Your task to perform on an android device: turn pop-ups off in chrome Image 0: 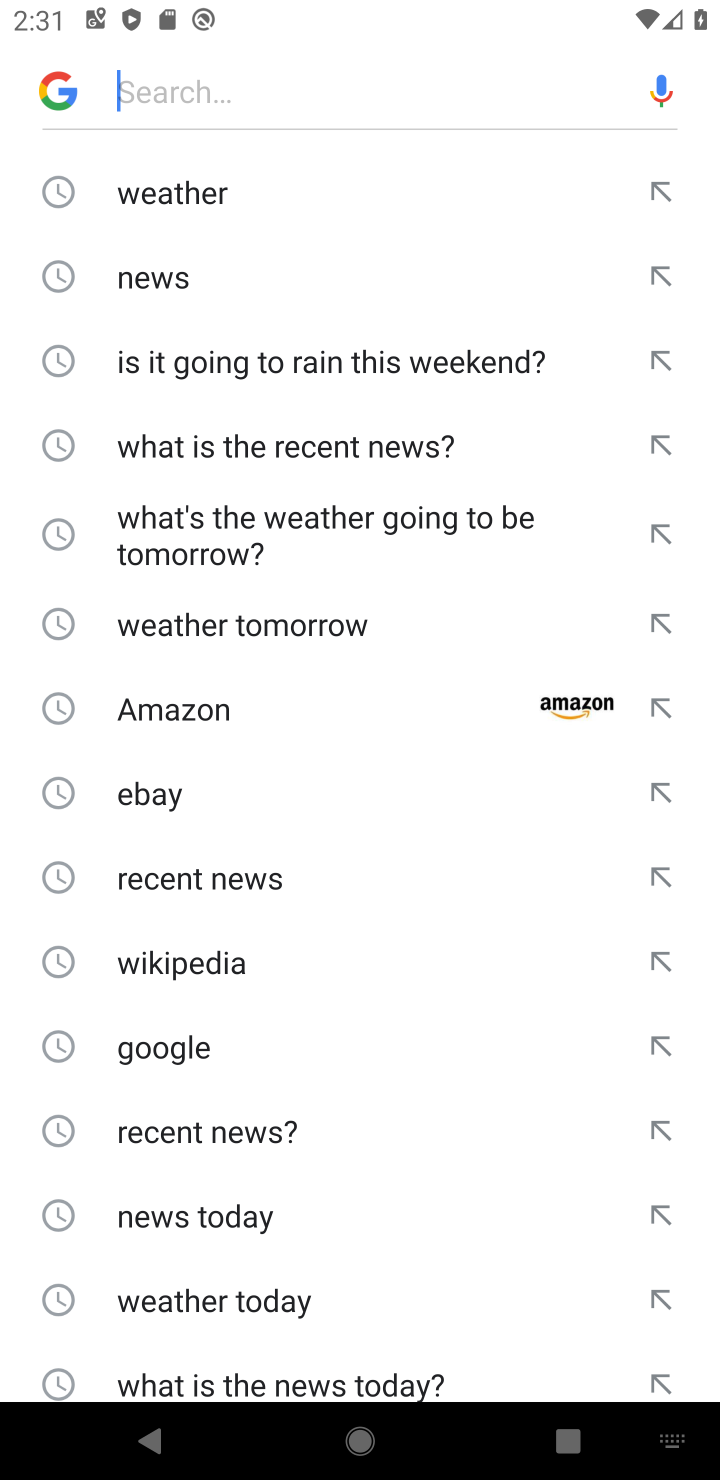
Step 0: press back button
Your task to perform on an android device: turn pop-ups off in chrome Image 1: 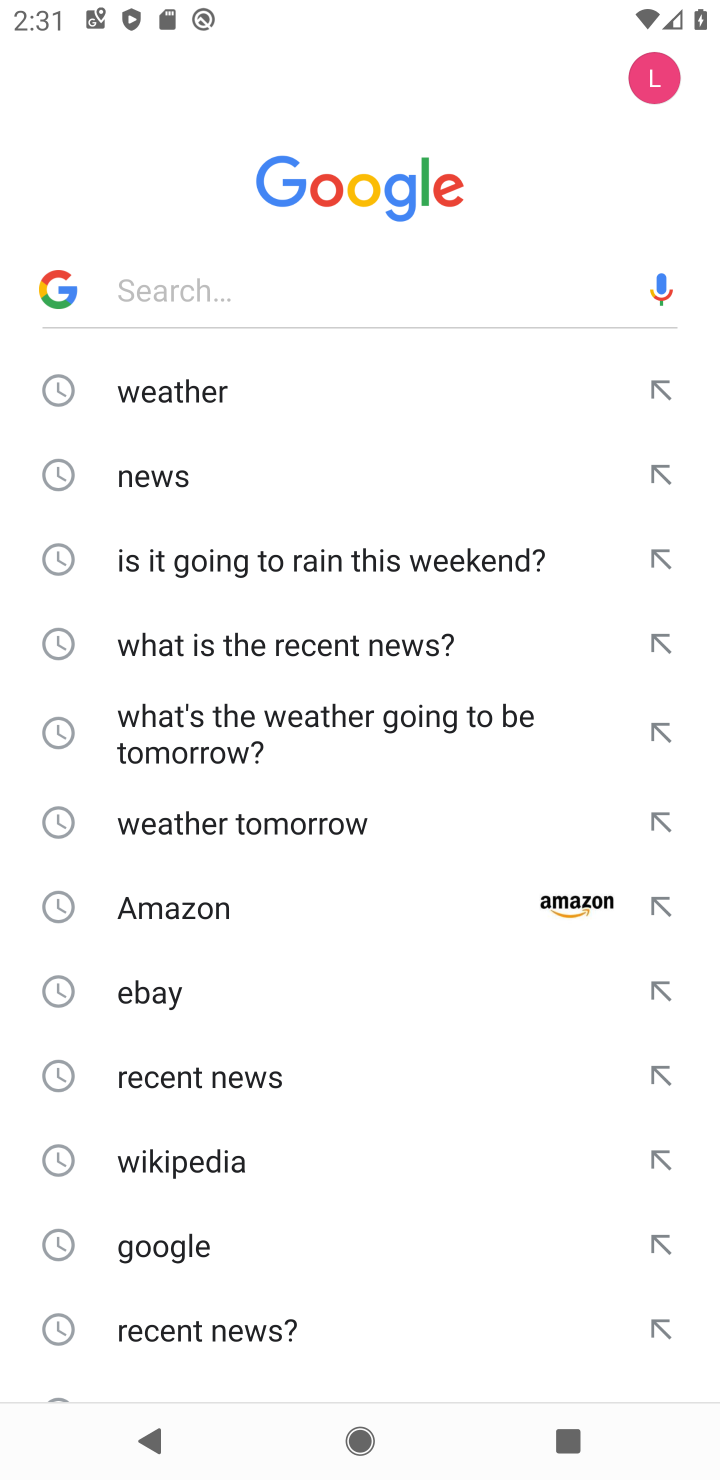
Step 1: press home button
Your task to perform on an android device: turn pop-ups off in chrome Image 2: 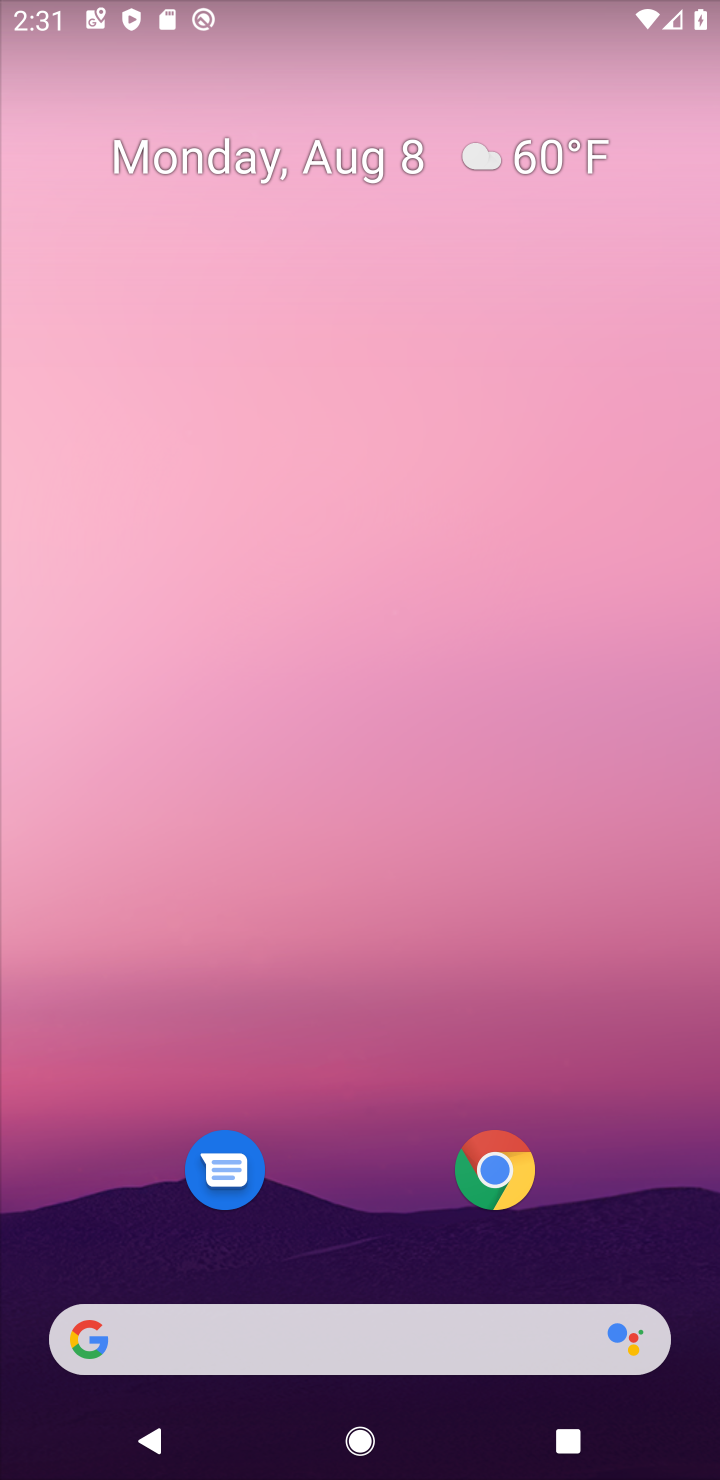
Step 2: click (480, 1186)
Your task to perform on an android device: turn pop-ups off in chrome Image 3: 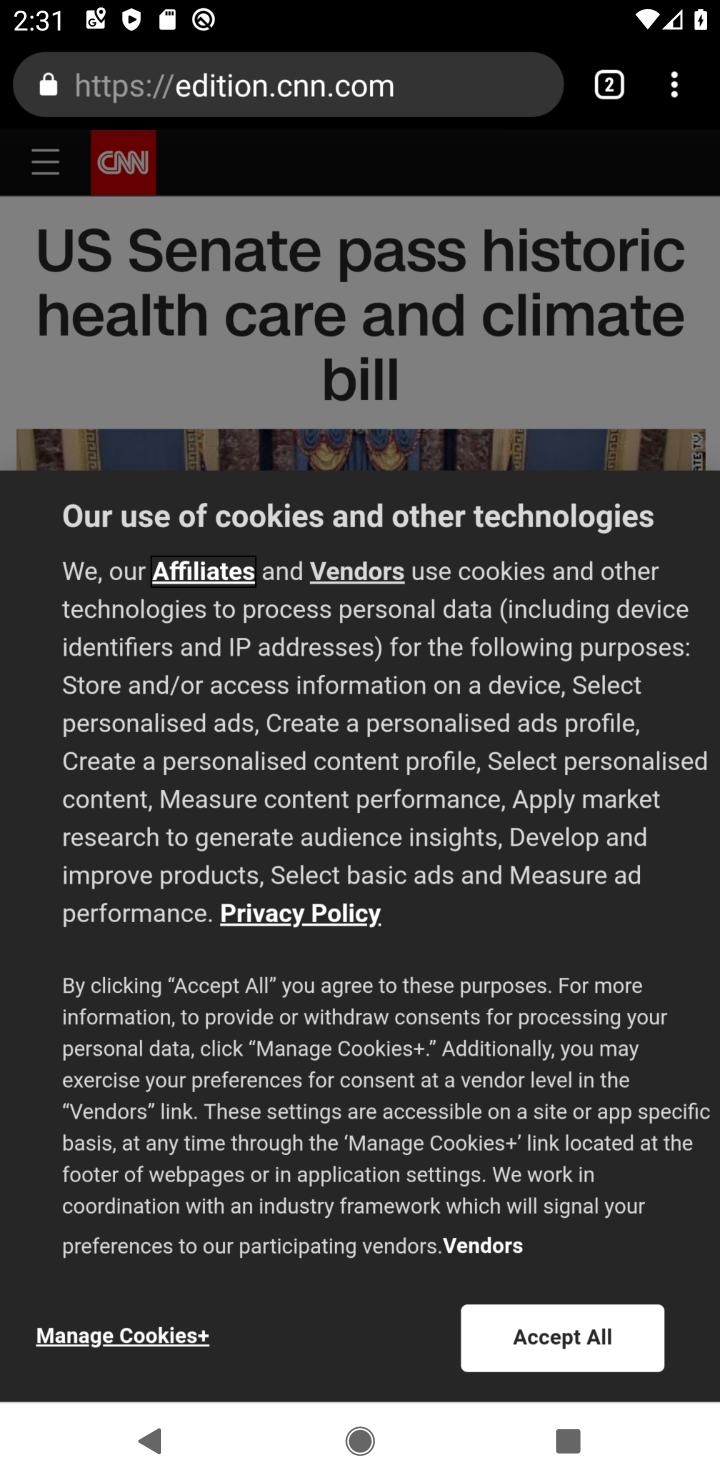
Step 3: click (673, 79)
Your task to perform on an android device: turn pop-ups off in chrome Image 4: 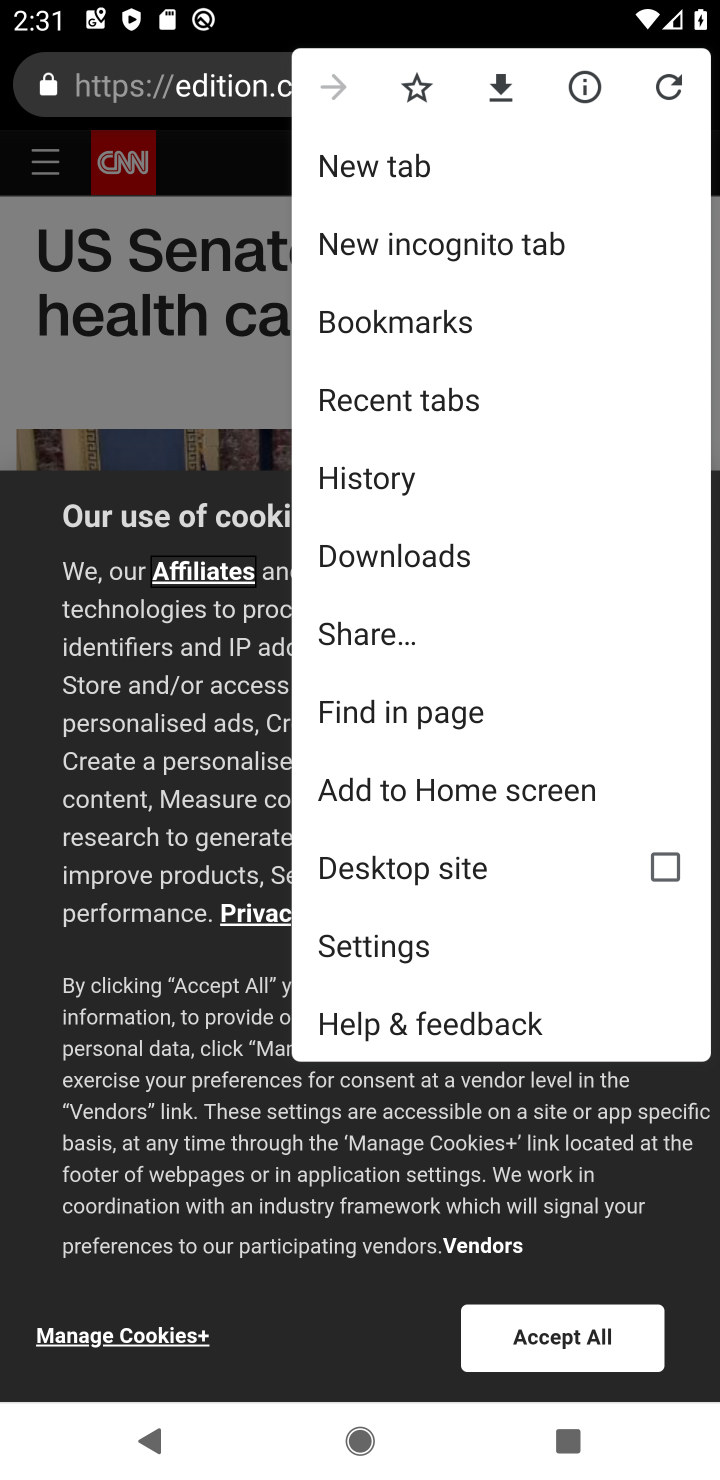
Step 4: click (389, 955)
Your task to perform on an android device: turn pop-ups off in chrome Image 5: 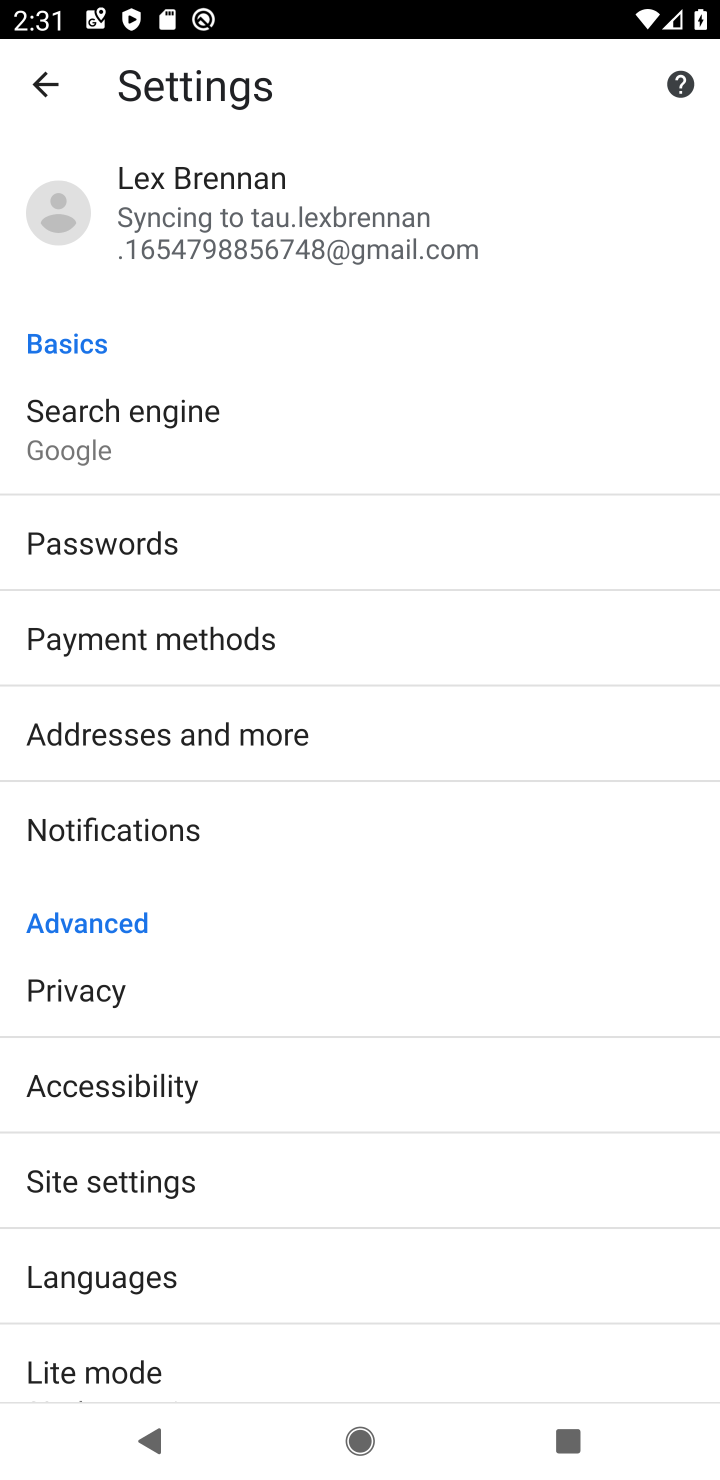
Step 5: click (232, 1182)
Your task to perform on an android device: turn pop-ups off in chrome Image 6: 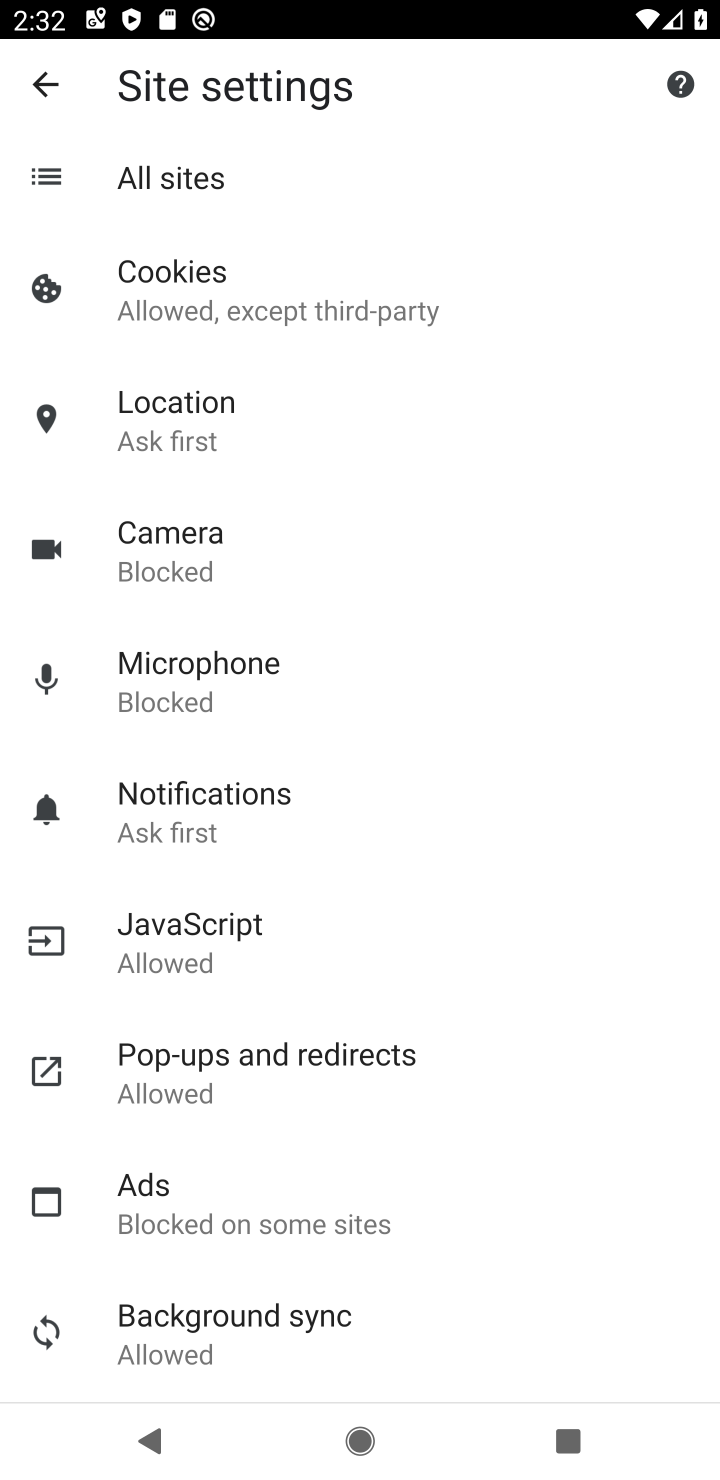
Step 6: click (251, 1091)
Your task to perform on an android device: turn pop-ups off in chrome Image 7: 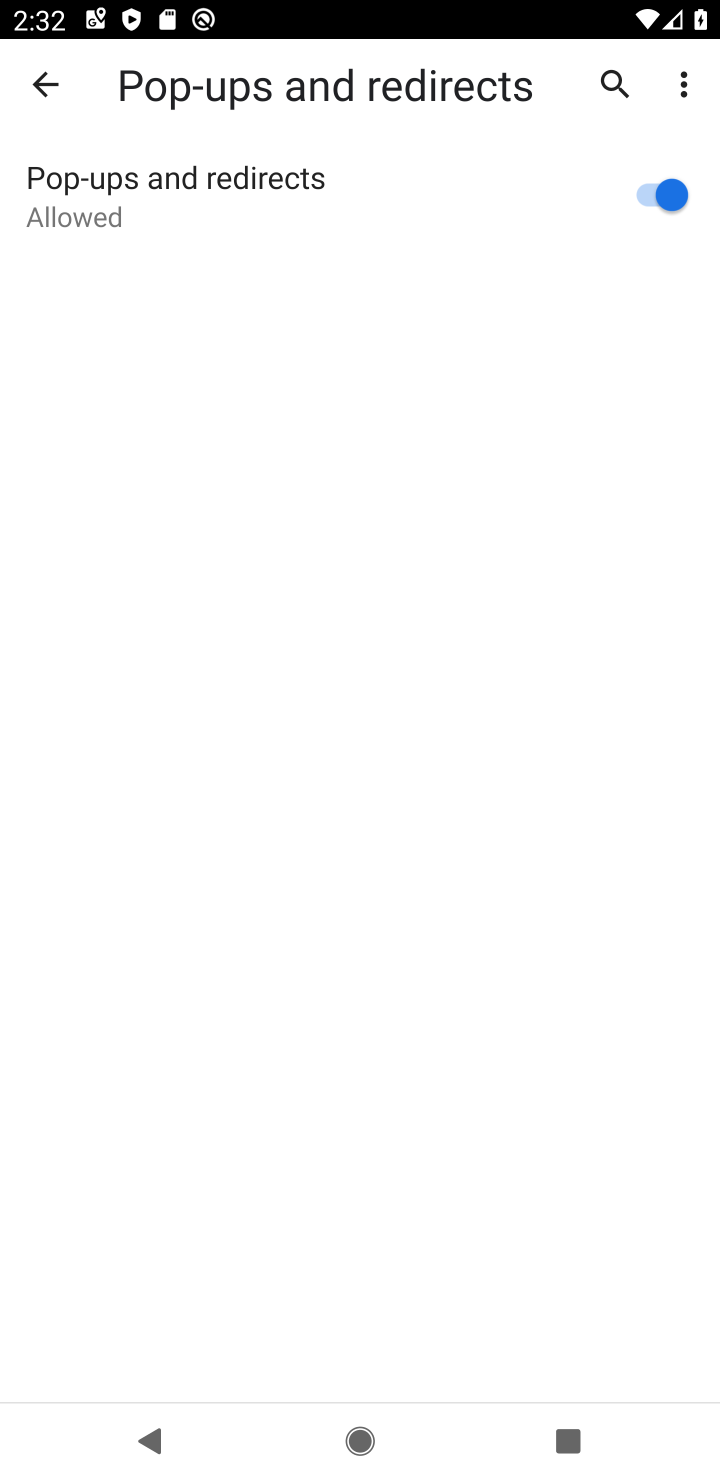
Step 7: click (638, 198)
Your task to perform on an android device: turn pop-ups off in chrome Image 8: 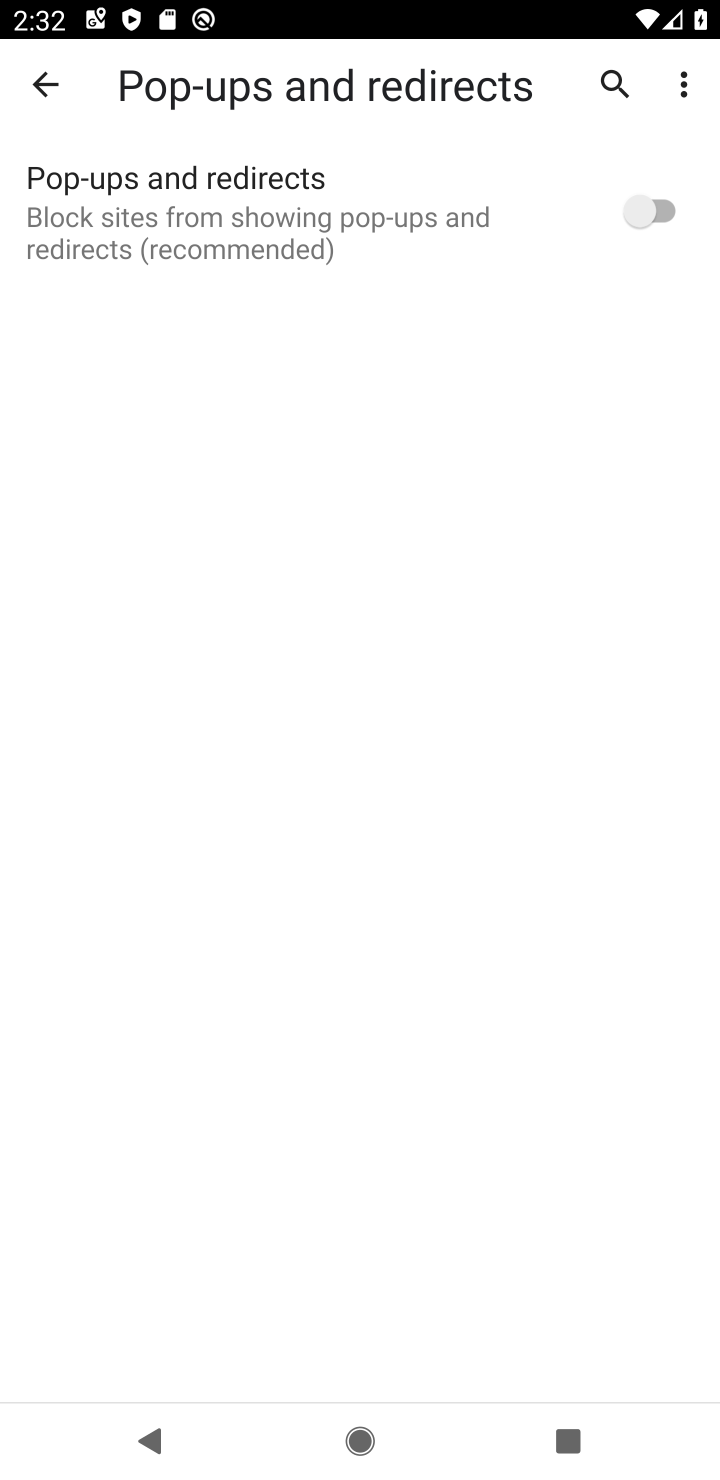
Step 8: task complete